Your task to perform on an android device: Go to wifi settings Image 0: 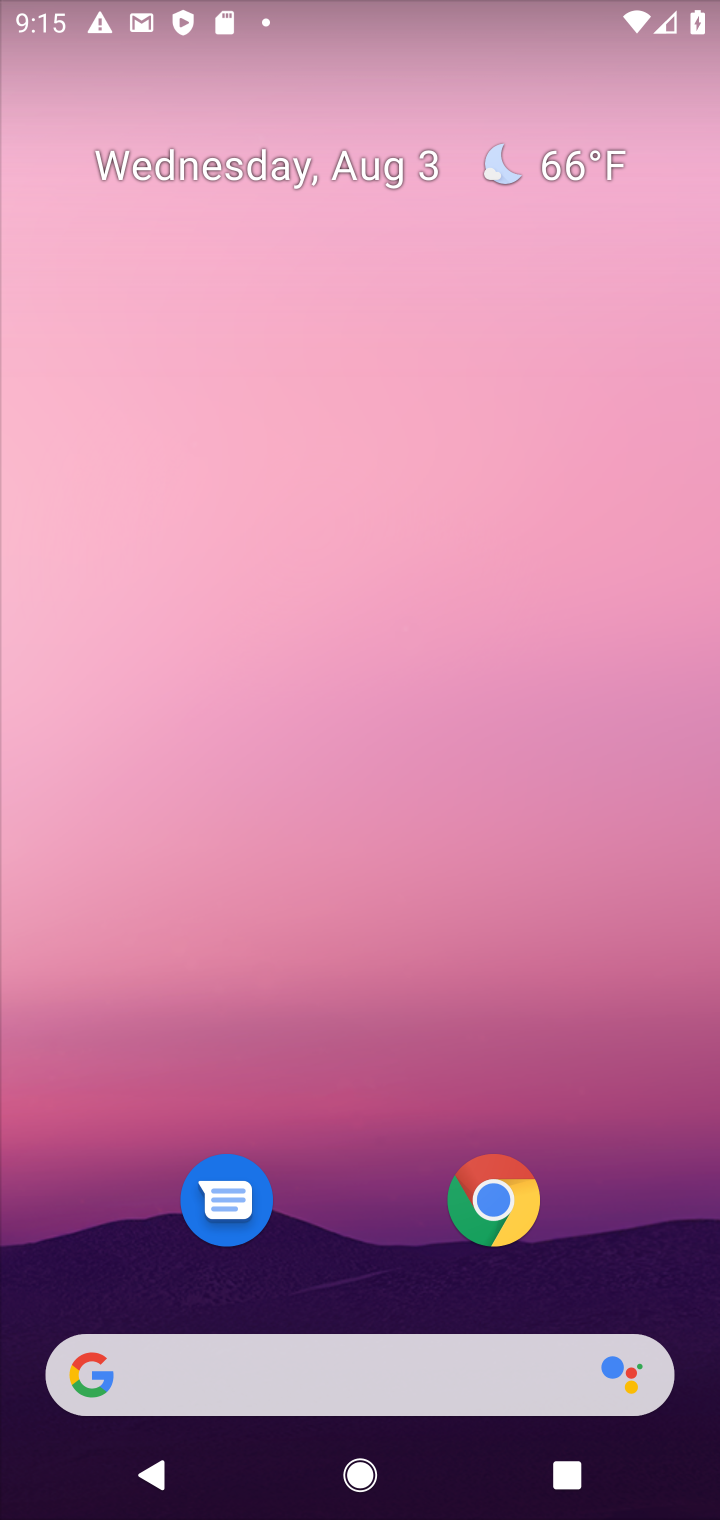
Step 0: drag from (479, 1340) to (427, 0)
Your task to perform on an android device: Go to wifi settings Image 1: 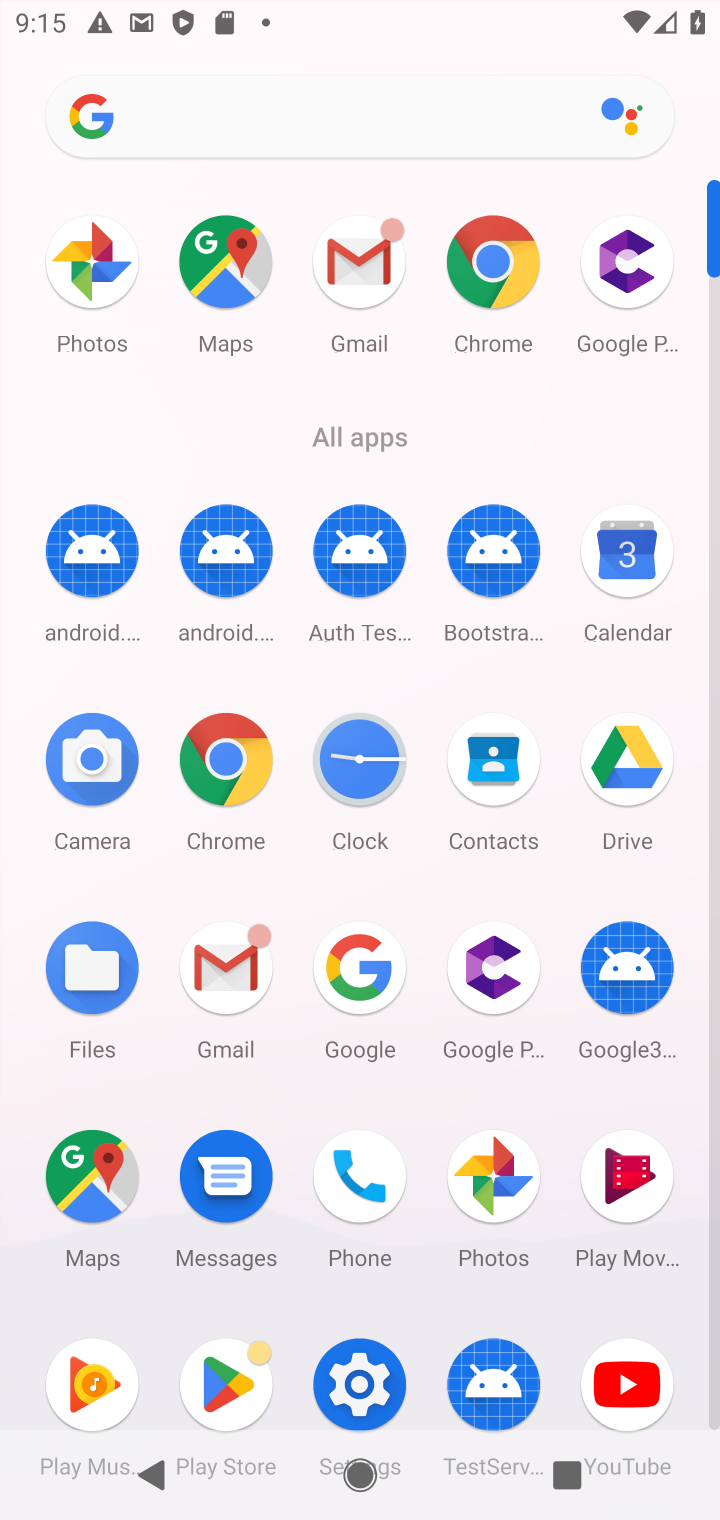
Step 1: click (381, 1354)
Your task to perform on an android device: Go to wifi settings Image 2: 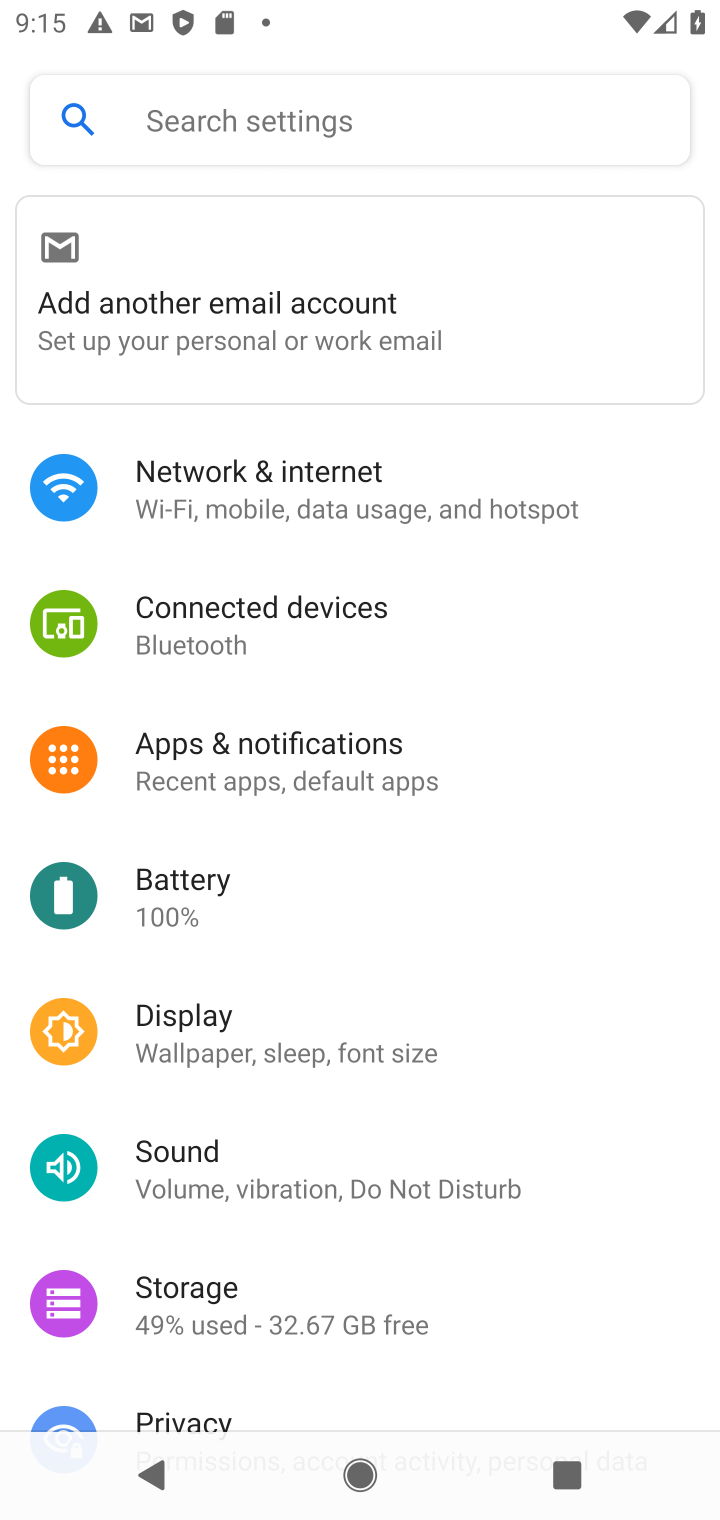
Step 2: click (267, 473)
Your task to perform on an android device: Go to wifi settings Image 3: 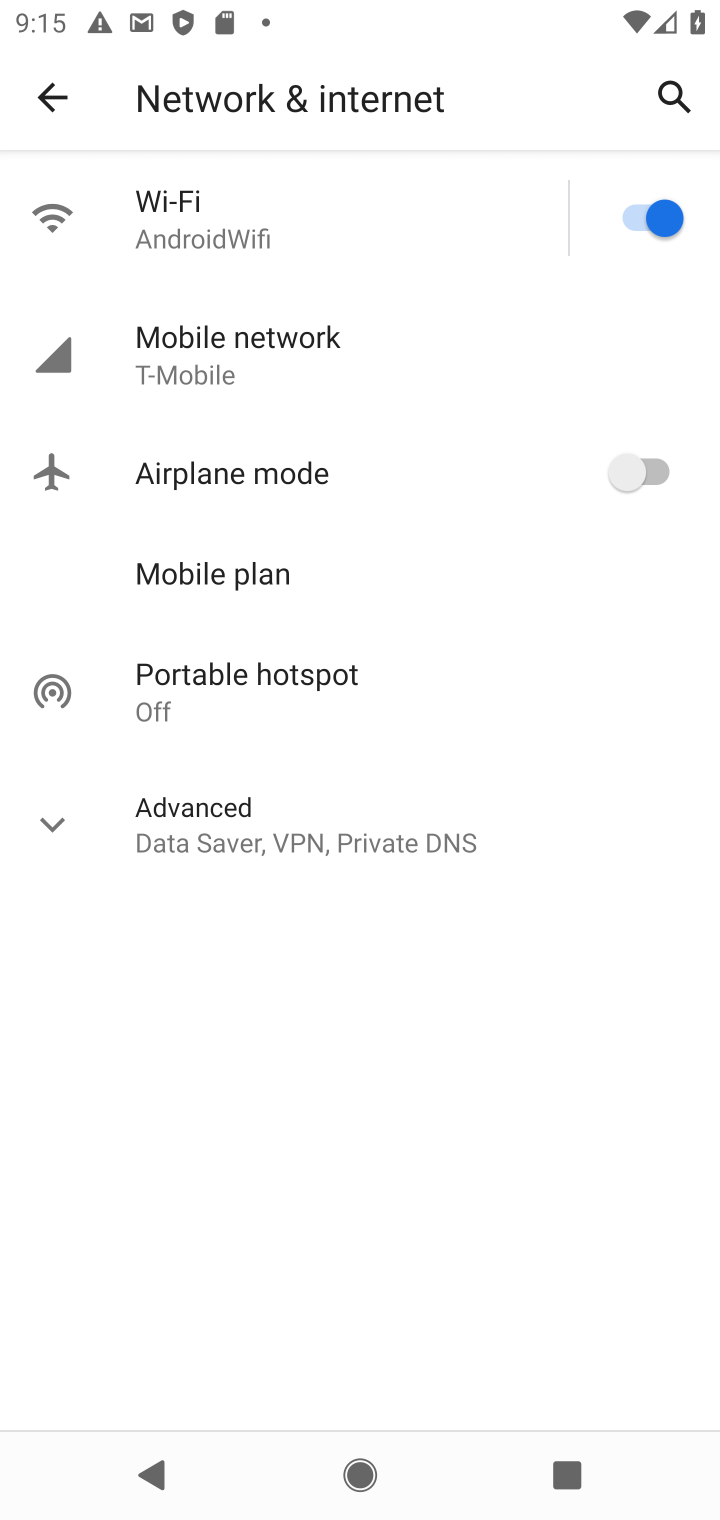
Step 3: click (311, 209)
Your task to perform on an android device: Go to wifi settings Image 4: 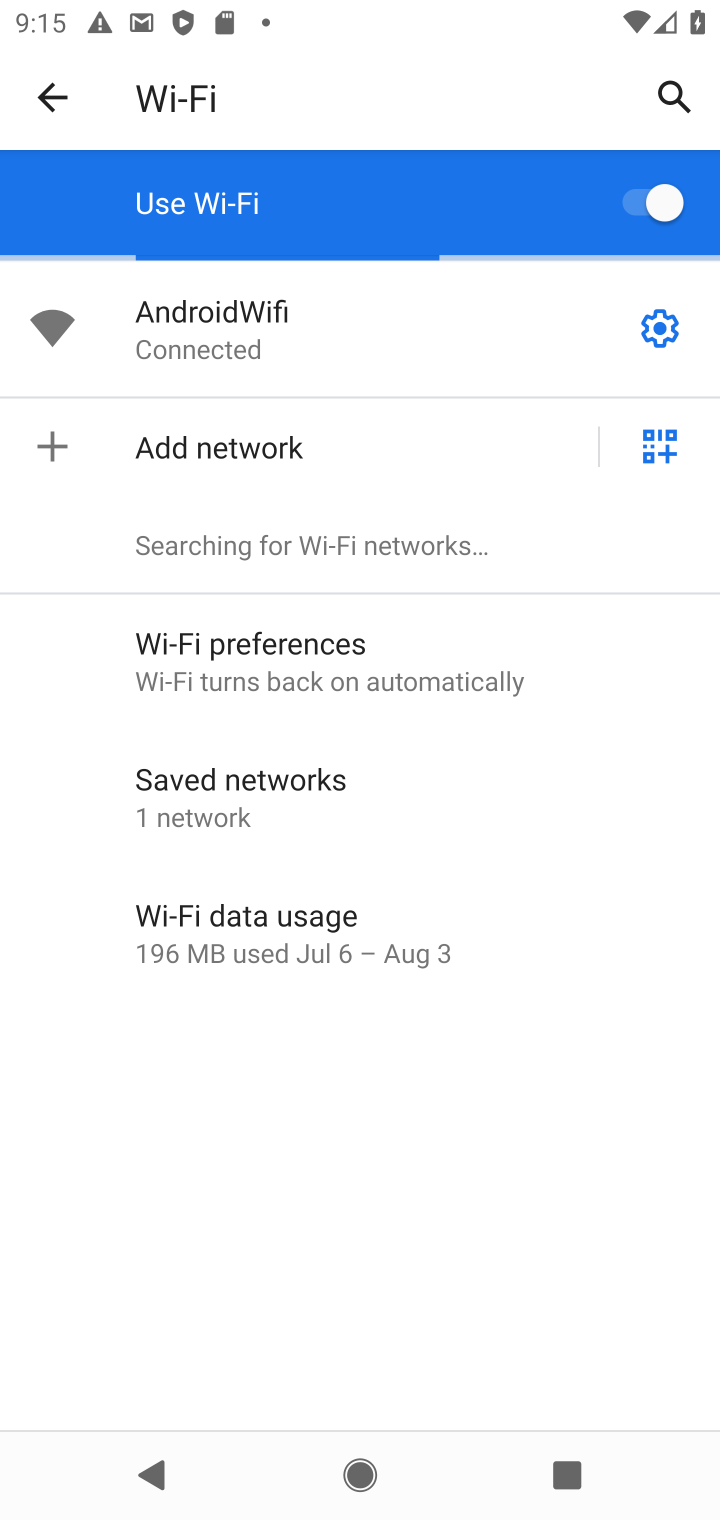
Step 4: task complete